Your task to perform on an android device: toggle translation in the chrome app Image 0: 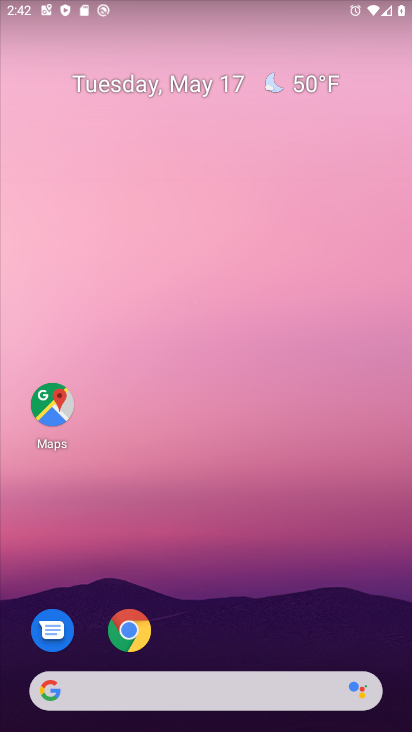
Step 0: click (127, 647)
Your task to perform on an android device: toggle translation in the chrome app Image 1: 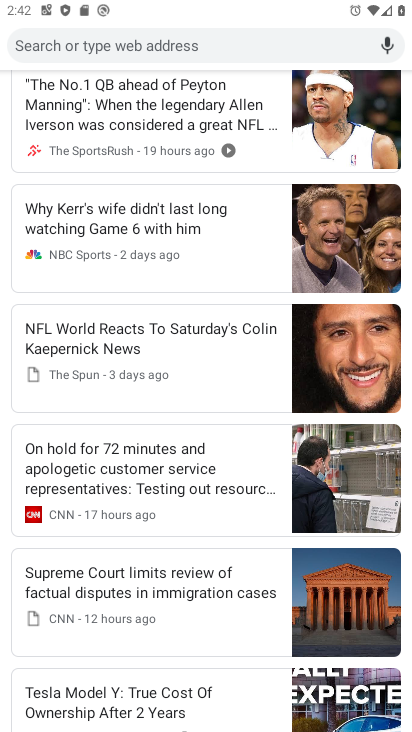
Step 1: drag from (186, 106) to (260, 508)
Your task to perform on an android device: toggle translation in the chrome app Image 2: 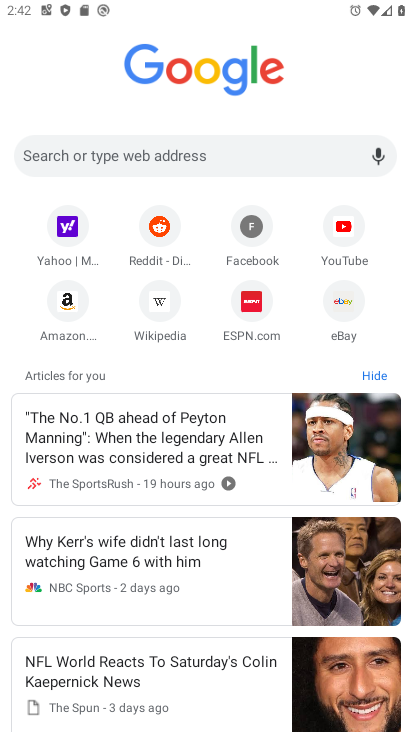
Step 2: drag from (312, 188) to (350, 528)
Your task to perform on an android device: toggle translation in the chrome app Image 3: 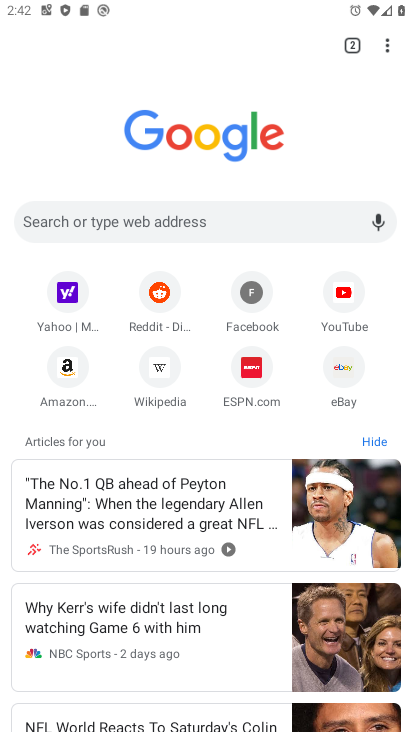
Step 3: click (394, 45)
Your task to perform on an android device: toggle translation in the chrome app Image 4: 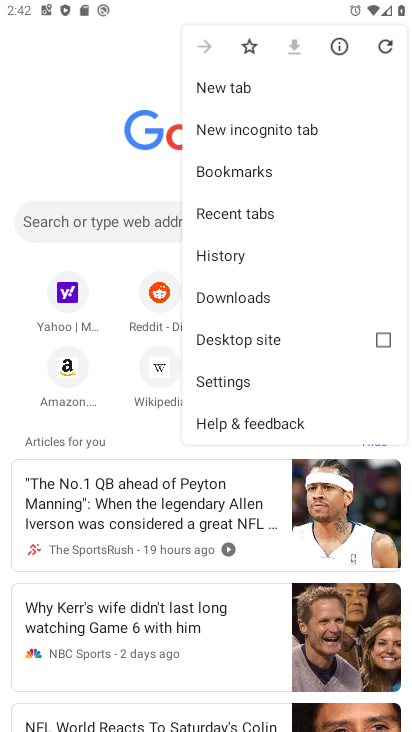
Step 4: click (253, 377)
Your task to perform on an android device: toggle translation in the chrome app Image 5: 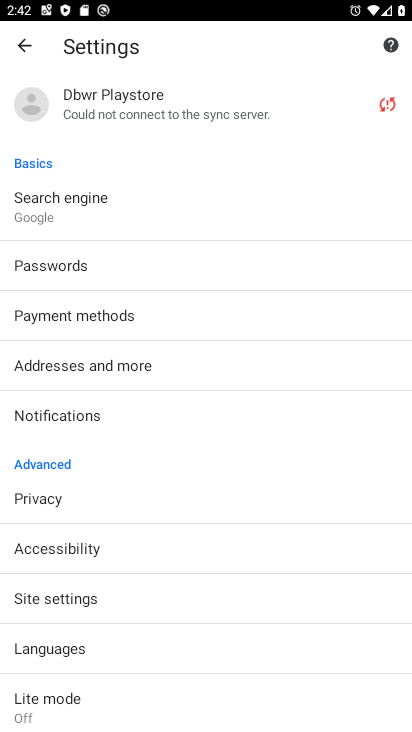
Step 5: click (34, 656)
Your task to perform on an android device: toggle translation in the chrome app Image 6: 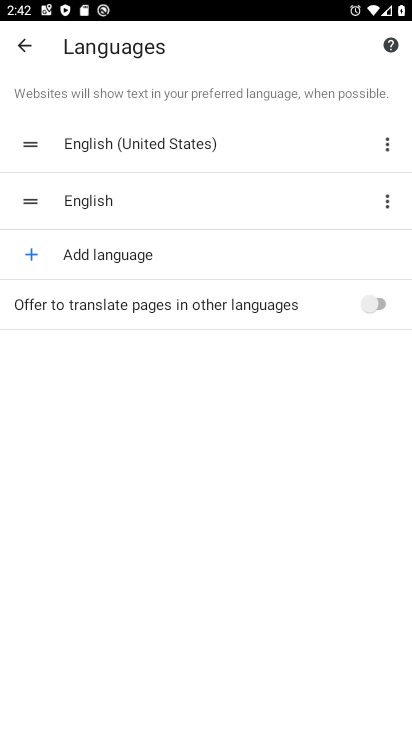
Step 6: click (375, 294)
Your task to perform on an android device: toggle translation in the chrome app Image 7: 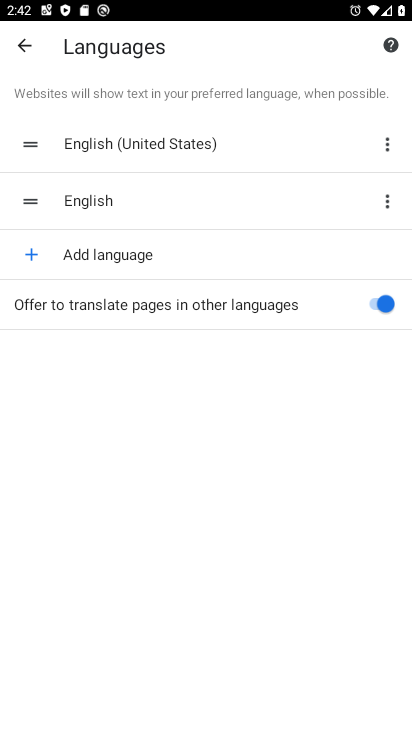
Step 7: task complete